Your task to perform on an android device: Open Yahoo.com Image 0: 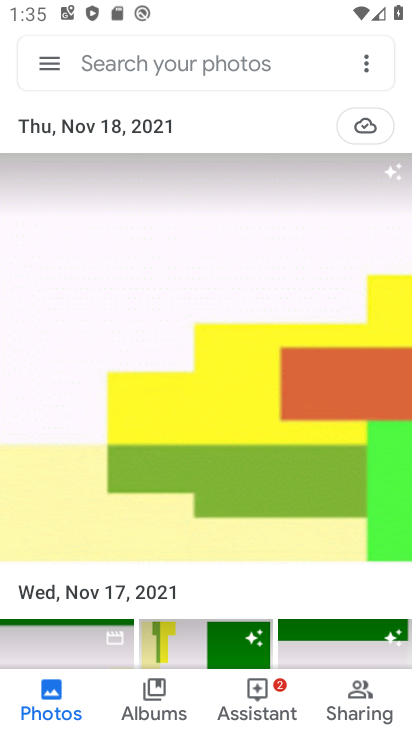
Step 0: press home button
Your task to perform on an android device: Open Yahoo.com Image 1: 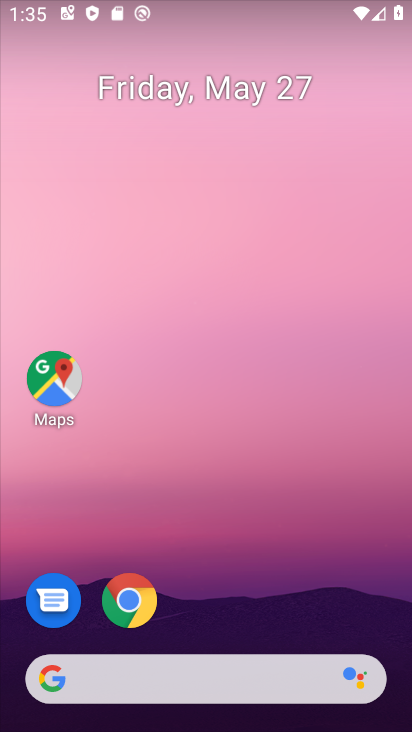
Step 1: click (125, 601)
Your task to perform on an android device: Open Yahoo.com Image 2: 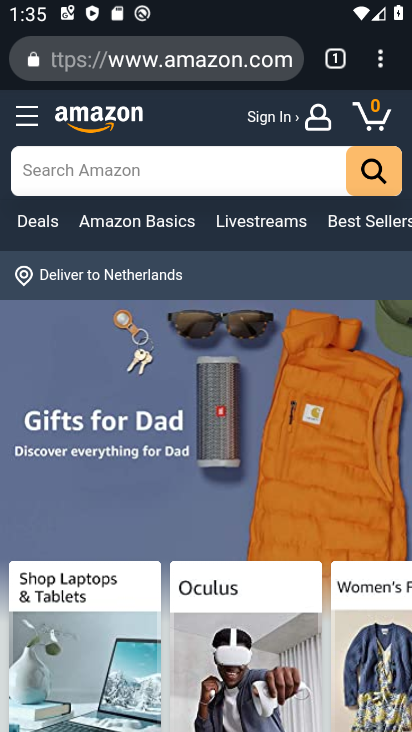
Step 2: click (380, 69)
Your task to perform on an android device: Open Yahoo.com Image 3: 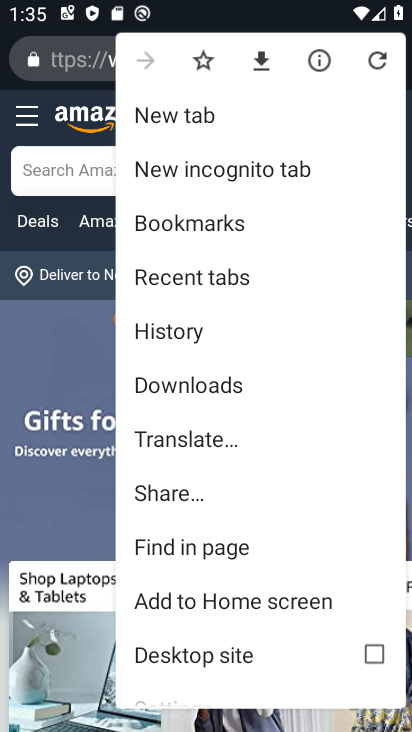
Step 3: click (192, 113)
Your task to perform on an android device: Open Yahoo.com Image 4: 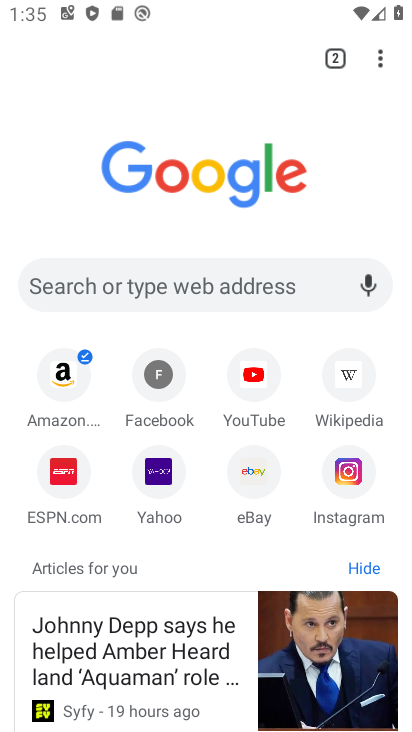
Step 4: click (153, 470)
Your task to perform on an android device: Open Yahoo.com Image 5: 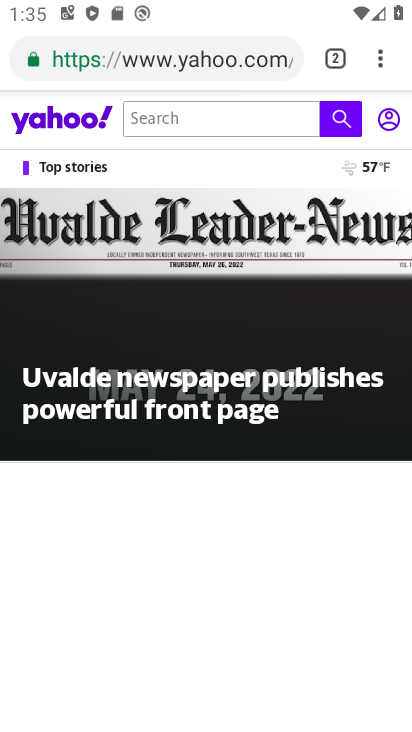
Step 5: task complete